Your task to perform on an android device: Open sound settings Image 0: 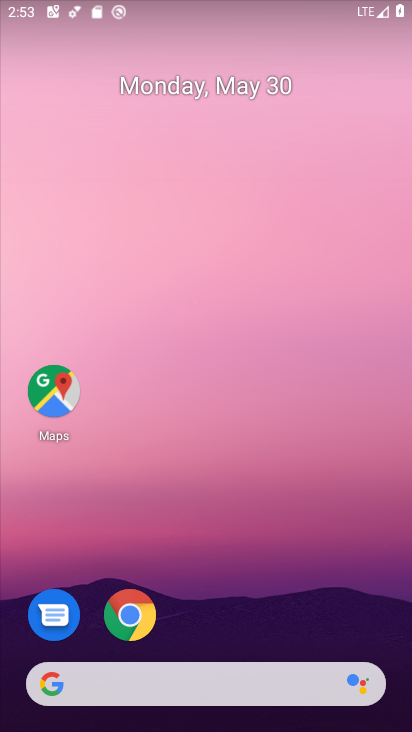
Step 0: drag from (249, 569) to (277, 75)
Your task to perform on an android device: Open sound settings Image 1: 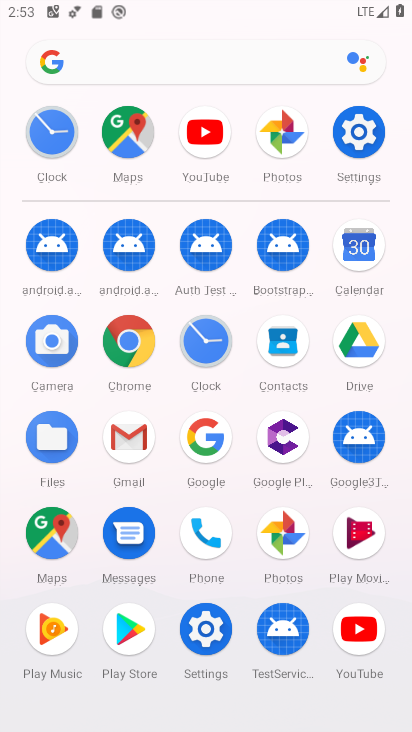
Step 1: click (364, 147)
Your task to perform on an android device: Open sound settings Image 2: 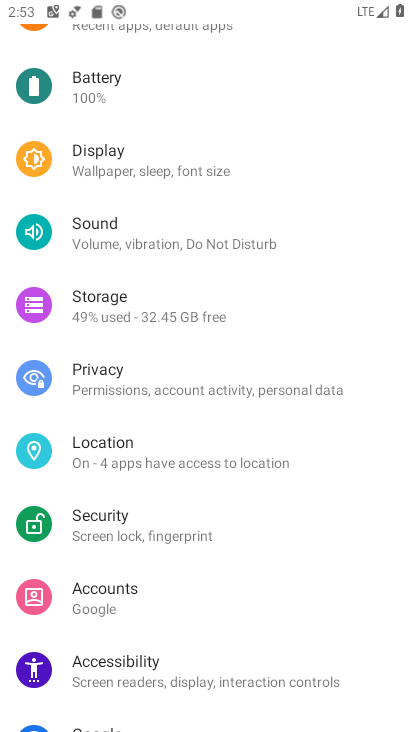
Step 2: click (201, 232)
Your task to perform on an android device: Open sound settings Image 3: 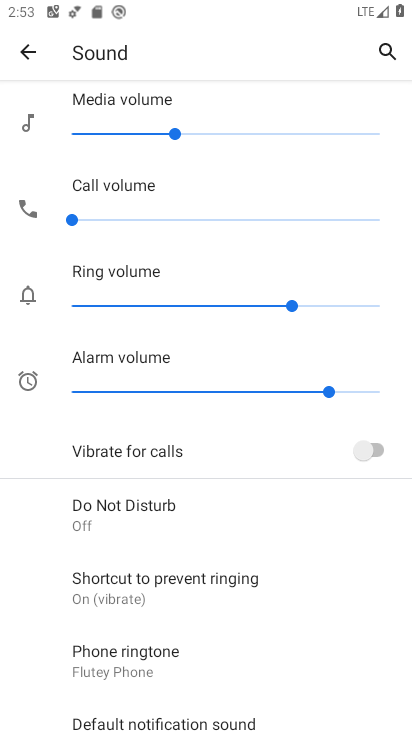
Step 3: task complete